Your task to perform on an android device: turn off javascript in the chrome app Image 0: 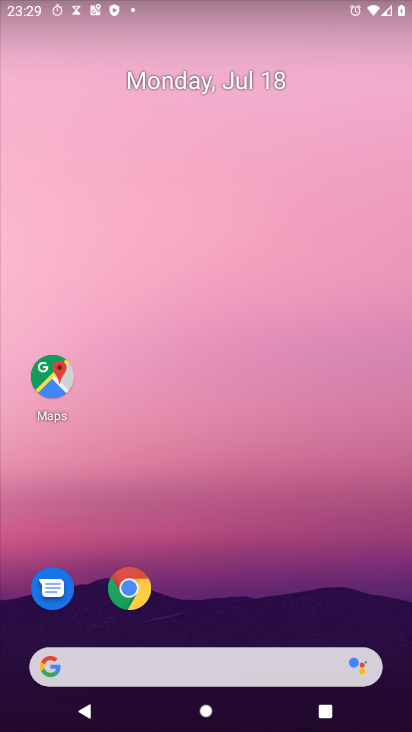
Step 0: press home button
Your task to perform on an android device: turn off javascript in the chrome app Image 1: 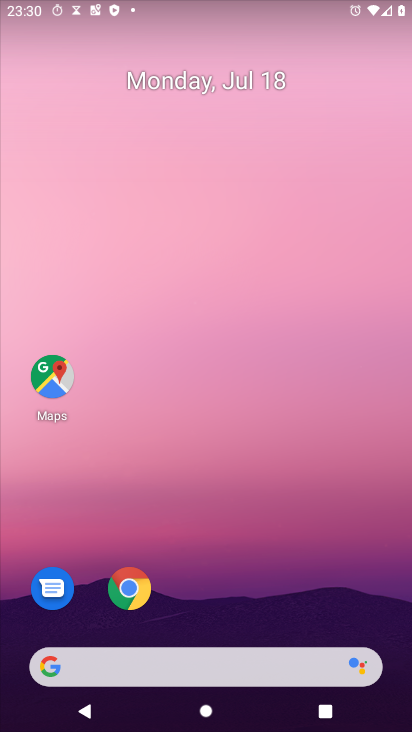
Step 1: click (134, 585)
Your task to perform on an android device: turn off javascript in the chrome app Image 2: 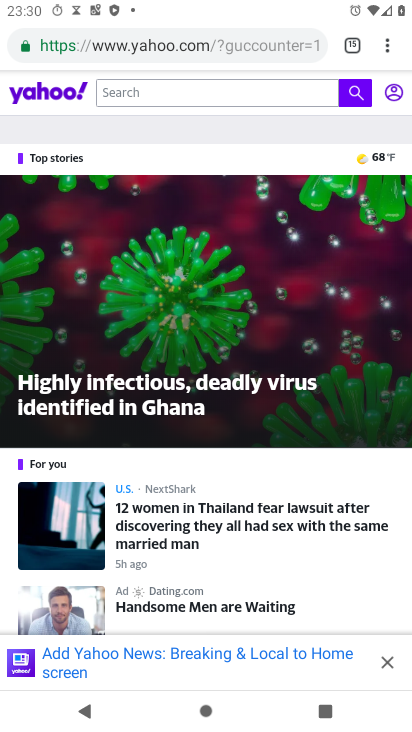
Step 2: drag from (387, 45) to (310, 550)
Your task to perform on an android device: turn off javascript in the chrome app Image 3: 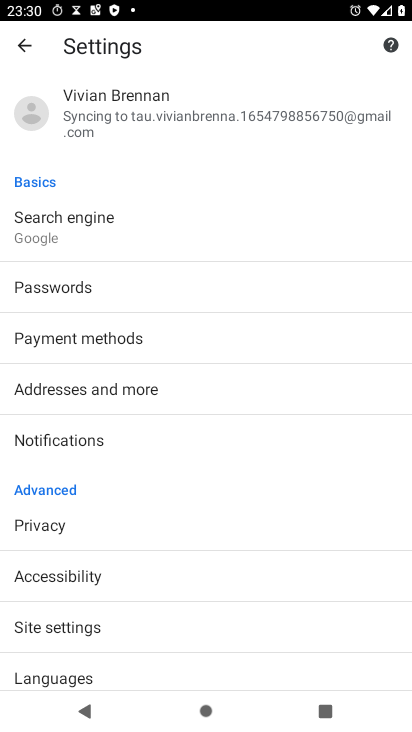
Step 3: click (74, 628)
Your task to perform on an android device: turn off javascript in the chrome app Image 4: 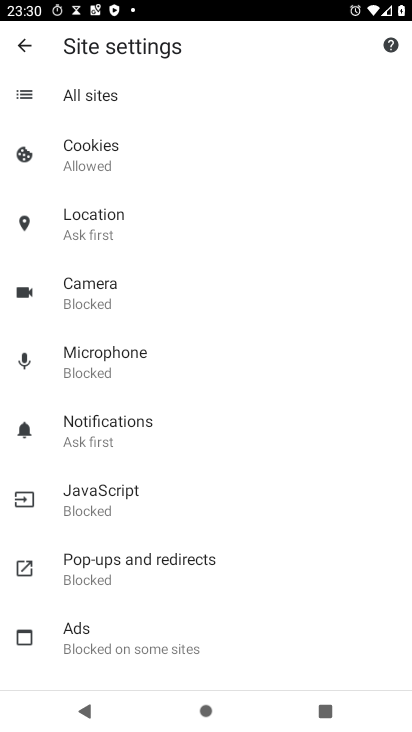
Step 4: click (114, 497)
Your task to perform on an android device: turn off javascript in the chrome app Image 5: 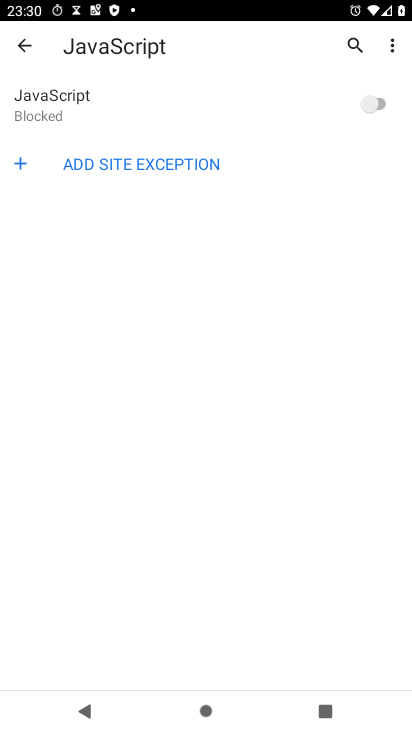
Step 5: task complete